Your task to perform on an android device: check data usage Image 0: 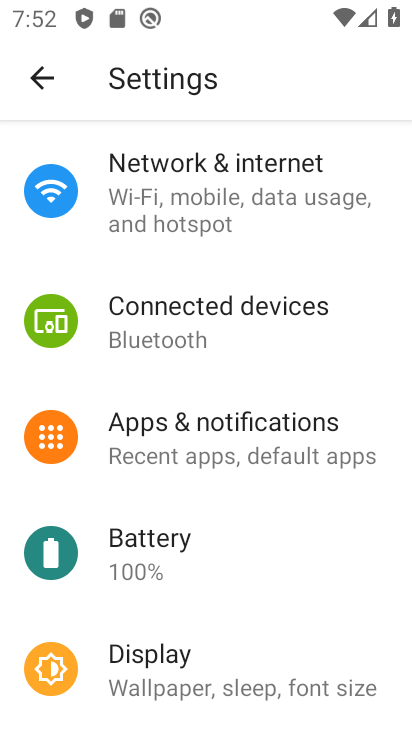
Step 0: click (229, 202)
Your task to perform on an android device: check data usage Image 1: 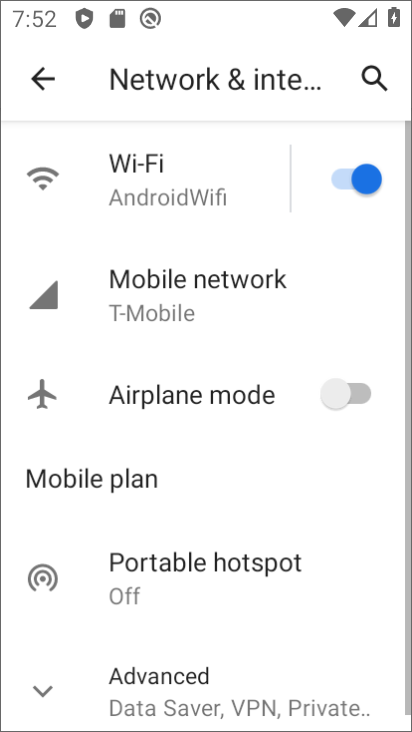
Step 1: click (229, 202)
Your task to perform on an android device: check data usage Image 2: 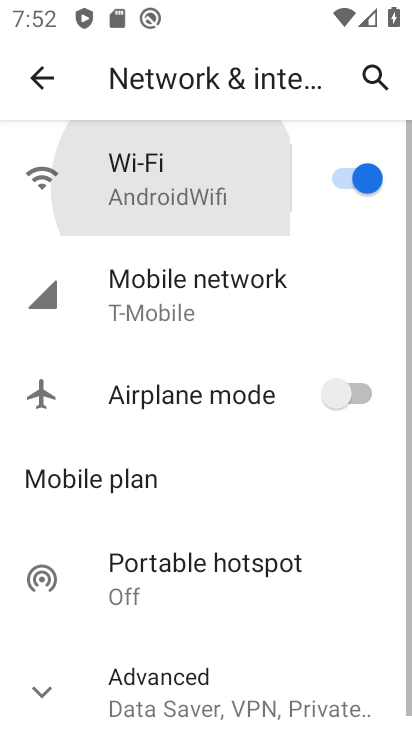
Step 2: click (217, 202)
Your task to perform on an android device: check data usage Image 3: 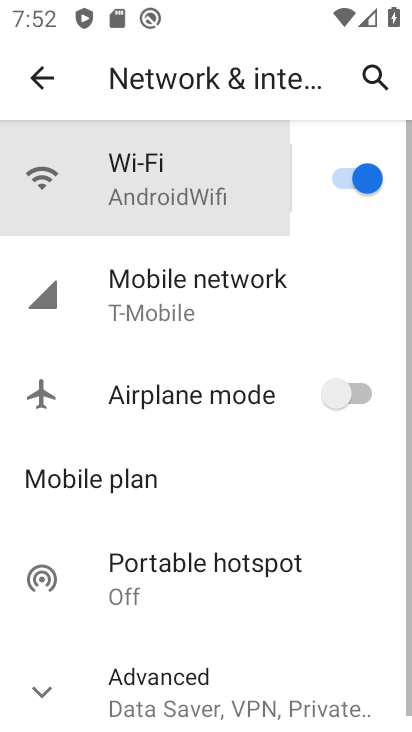
Step 3: click (213, 199)
Your task to perform on an android device: check data usage Image 4: 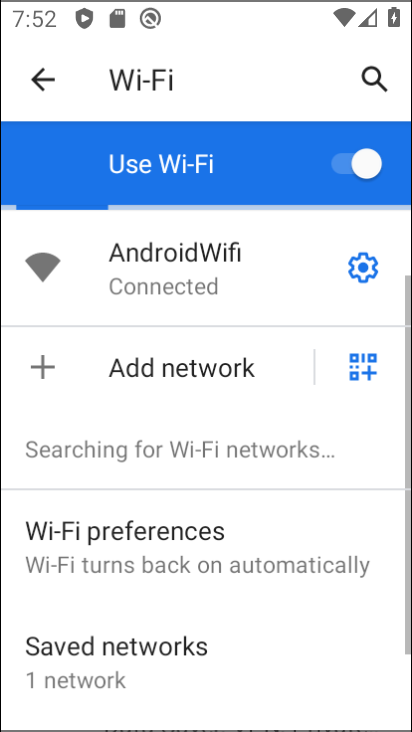
Step 4: drag from (194, 187) to (153, 185)
Your task to perform on an android device: check data usage Image 5: 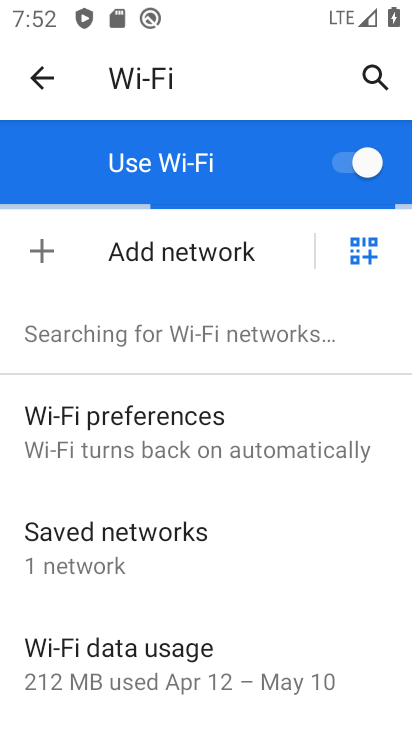
Step 5: click (137, 200)
Your task to perform on an android device: check data usage Image 6: 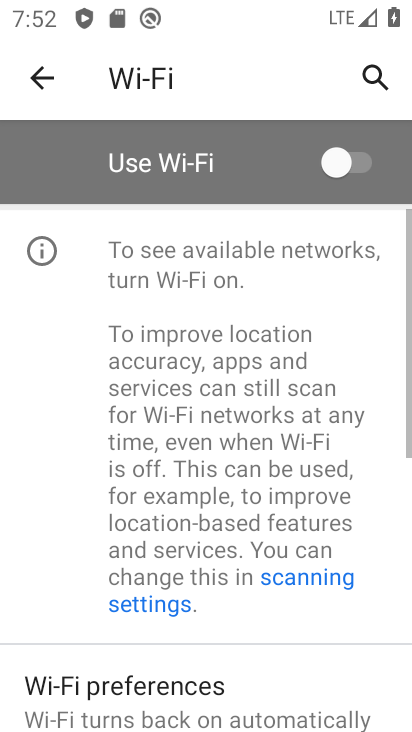
Step 6: task complete